Your task to perform on an android device: turn on priority inbox in the gmail app Image 0: 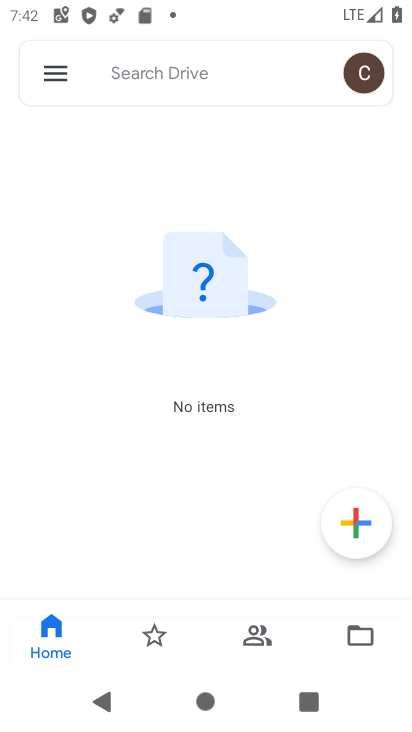
Step 0: press home button
Your task to perform on an android device: turn on priority inbox in the gmail app Image 1: 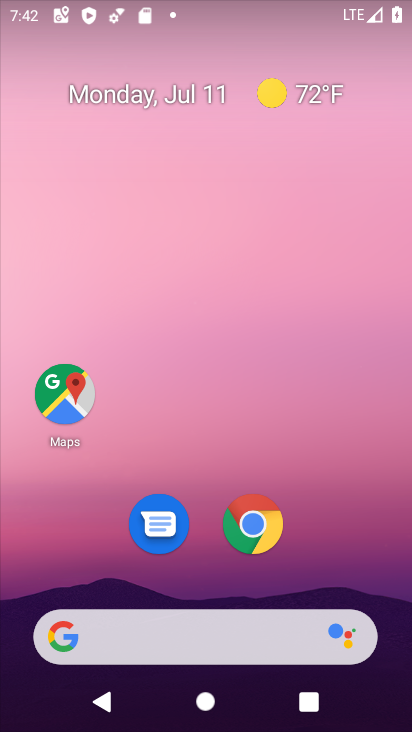
Step 1: drag from (203, 436) to (134, 22)
Your task to perform on an android device: turn on priority inbox in the gmail app Image 2: 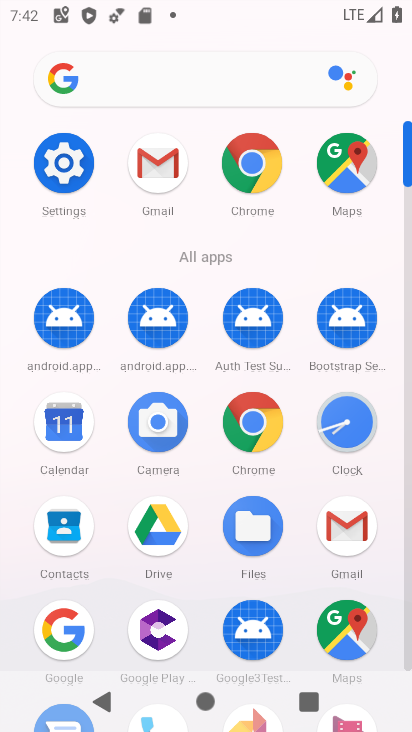
Step 2: click (168, 159)
Your task to perform on an android device: turn on priority inbox in the gmail app Image 3: 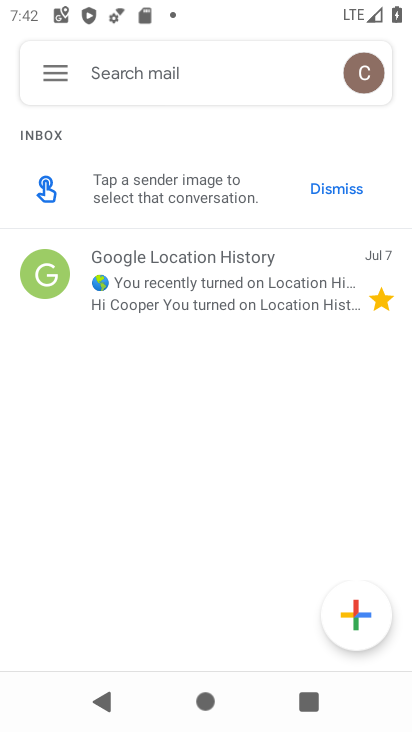
Step 3: click (49, 72)
Your task to perform on an android device: turn on priority inbox in the gmail app Image 4: 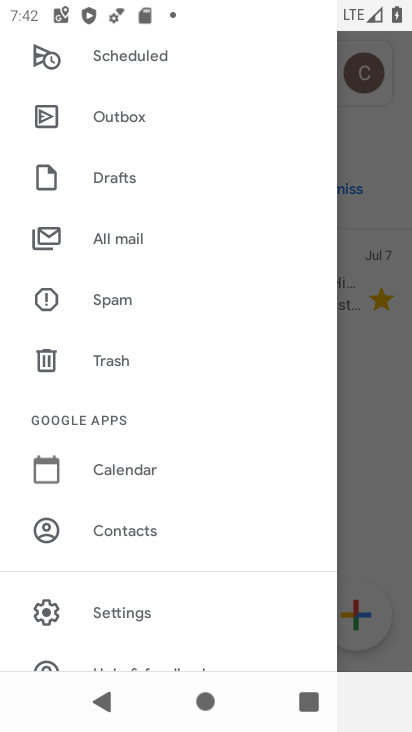
Step 4: click (126, 615)
Your task to perform on an android device: turn on priority inbox in the gmail app Image 5: 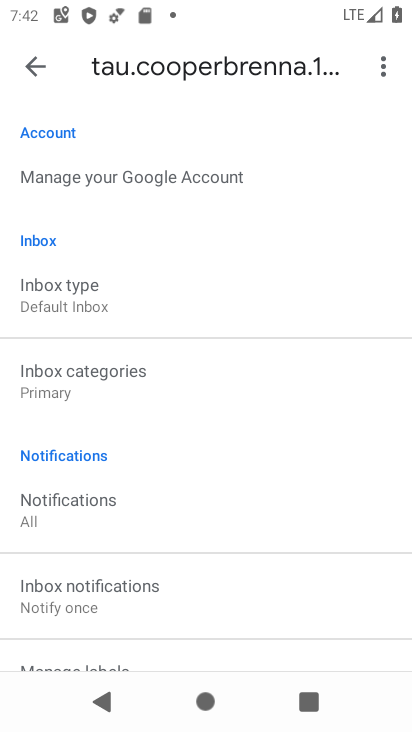
Step 5: click (90, 287)
Your task to perform on an android device: turn on priority inbox in the gmail app Image 6: 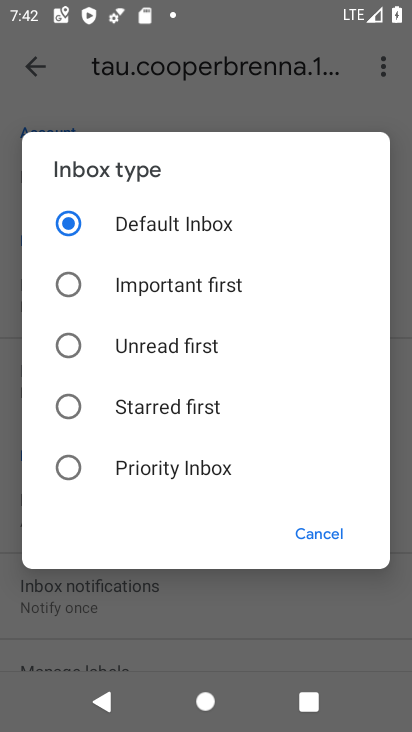
Step 6: click (61, 464)
Your task to perform on an android device: turn on priority inbox in the gmail app Image 7: 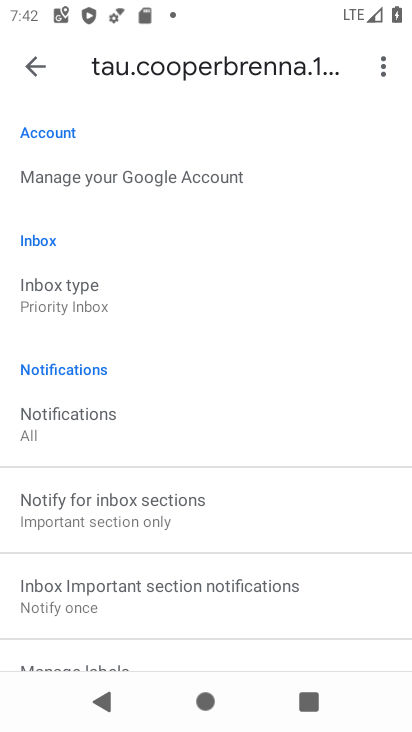
Step 7: task complete